Your task to perform on an android device: all mails in gmail Image 0: 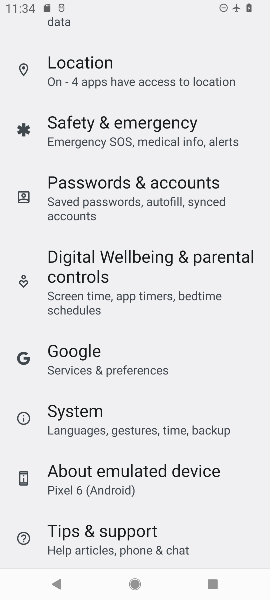
Step 0: press back button
Your task to perform on an android device: all mails in gmail Image 1: 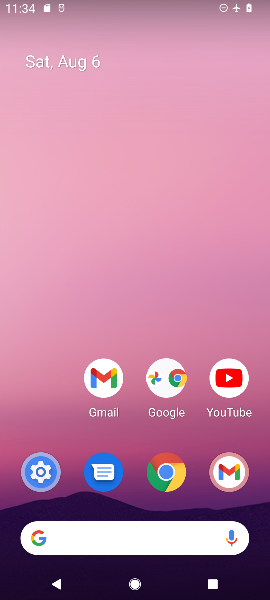
Step 1: drag from (155, 557) to (55, 170)
Your task to perform on an android device: all mails in gmail Image 2: 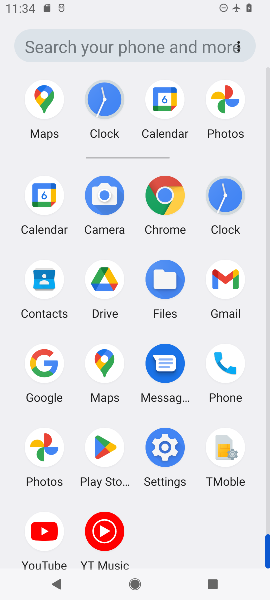
Step 2: click (230, 281)
Your task to perform on an android device: all mails in gmail Image 3: 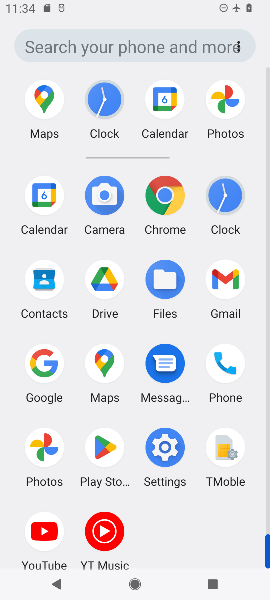
Step 3: click (230, 282)
Your task to perform on an android device: all mails in gmail Image 4: 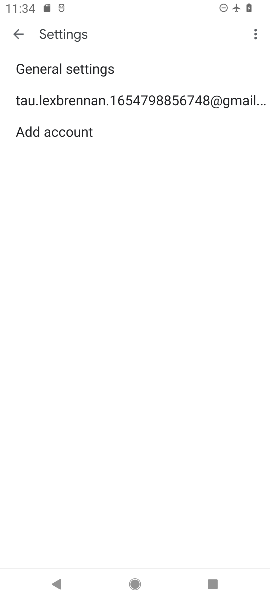
Step 4: click (78, 101)
Your task to perform on an android device: all mails in gmail Image 5: 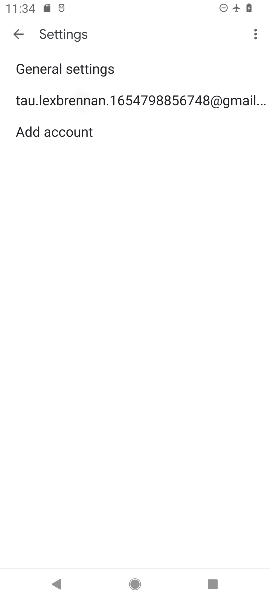
Step 5: click (78, 101)
Your task to perform on an android device: all mails in gmail Image 6: 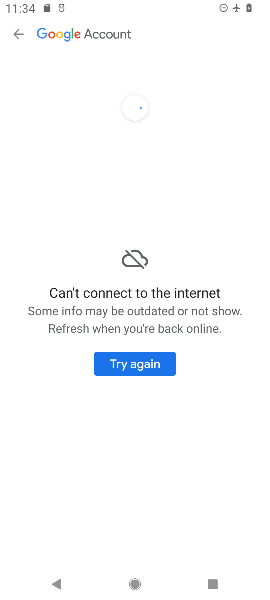
Step 6: click (21, 38)
Your task to perform on an android device: all mails in gmail Image 7: 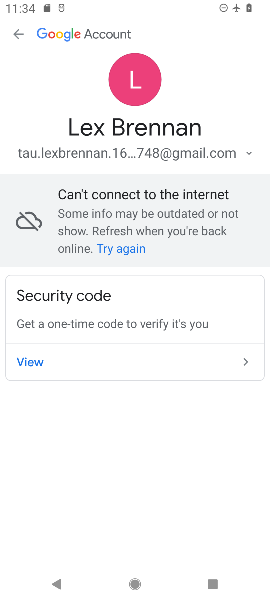
Step 7: click (22, 36)
Your task to perform on an android device: all mails in gmail Image 8: 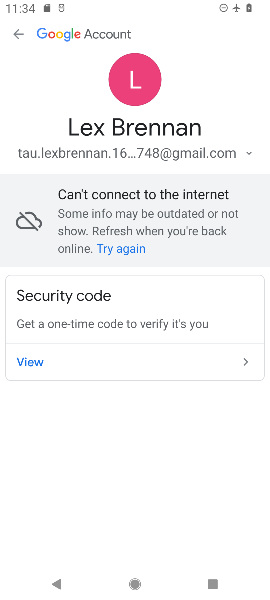
Step 8: click (22, 36)
Your task to perform on an android device: all mails in gmail Image 9: 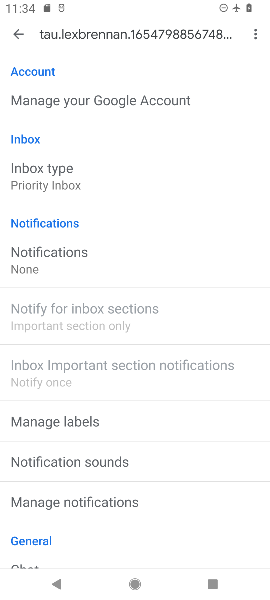
Step 9: click (10, 34)
Your task to perform on an android device: all mails in gmail Image 10: 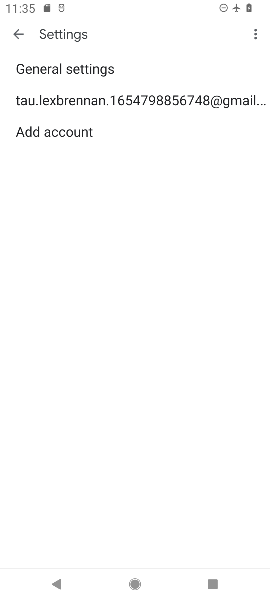
Step 10: click (22, 42)
Your task to perform on an android device: all mails in gmail Image 11: 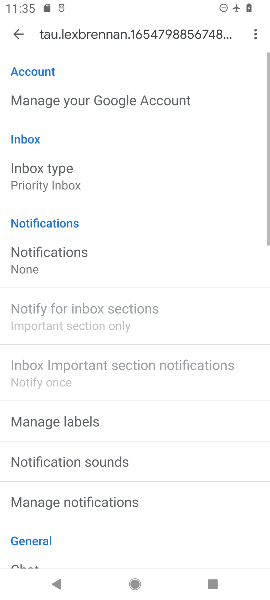
Step 11: click (21, 40)
Your task to perform on an android device: all mails in gmail Image 12: 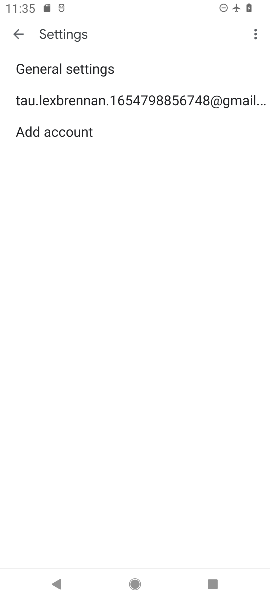
Step 12: click (17, 34)
Your task to perform on an android device: all mails in gmail Image 13: 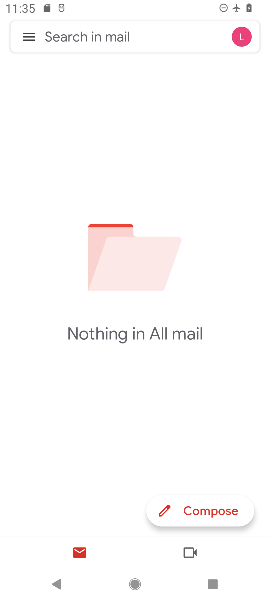
Step 13: drag from (38, 32) to (136, 547)
Your task to perform on an android device: all mails in gmail Image 14: 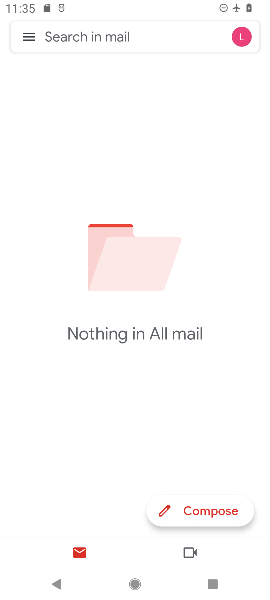
Step 14: drag from (26, 32) to (18, 418)
Your task to perform on an android device: all mails in gmail Image 15: 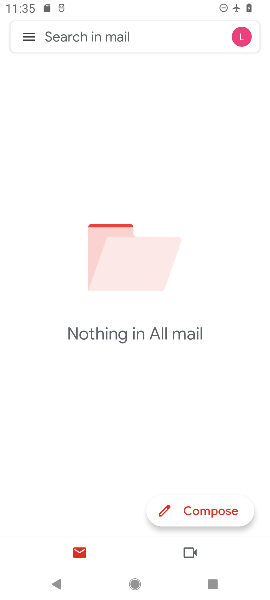
Step 15: drag from (28, 28) to (73, 193)
Your task to perform on an android device: all mails in gmail Image 16: 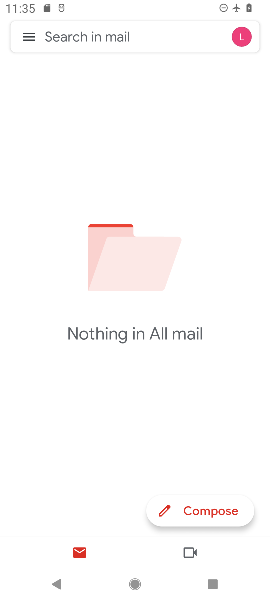
Step 16: click (28, 32)
Your task to perform on an android device: all mails in gmail Image 17: 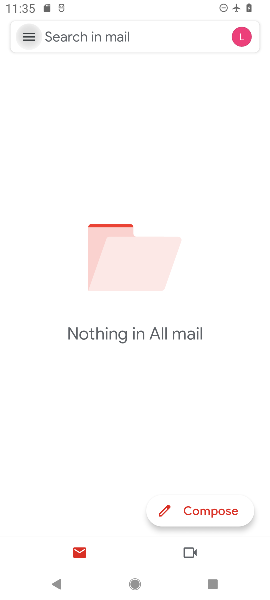
Step 17: click (28, 32)
Your task to perform on an android device: all mails in gmail Image 18: 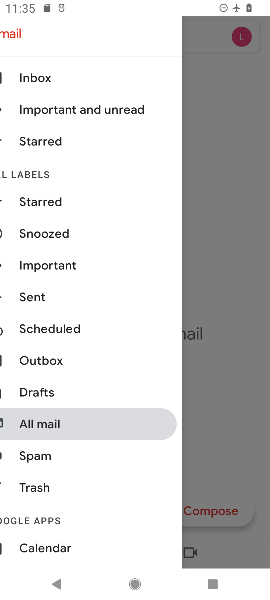
Step 18: drag from (29, 32) to (74, 433)
Your task to perform on an android device: all mails in gmail Image 19: 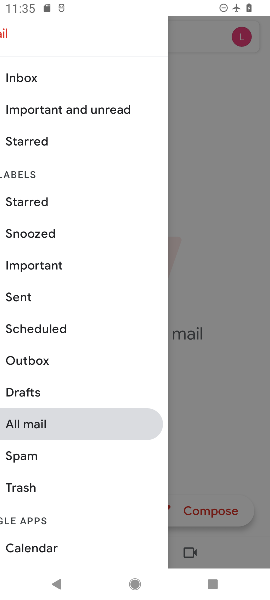
Step 19: click (75, 432)
Your task to perform on an android device: all mails in gmail Image 20: 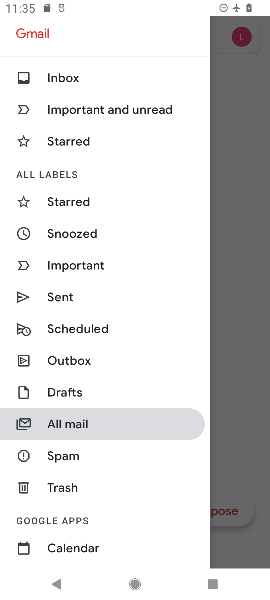
Step 20: click (76, 432)
Your task to perform on an android device: all mails in gmail Image 21: 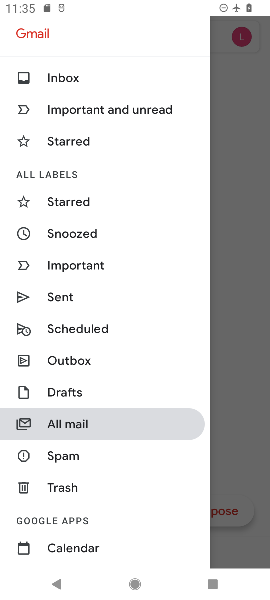
Step 21: click (77, 432)
Your task to perform on an android device: all mails in gmail Image 22: 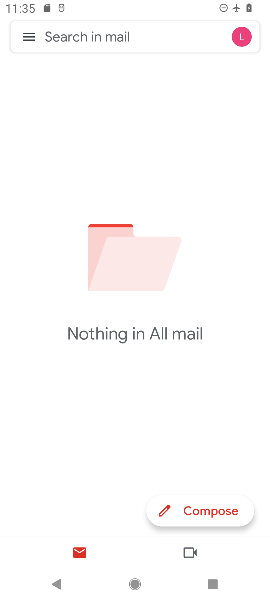
Step 22: task complete